Your task to perform on an android device: change keyboard looks Image 0: 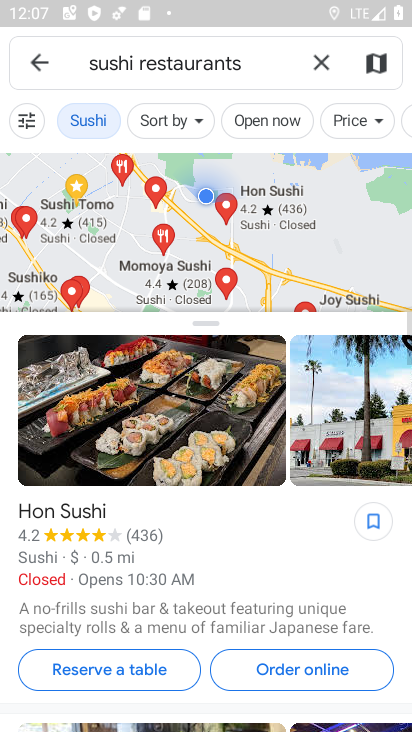
Step 0: press home button
Your task to perform on an android device: change keyboard looks Image 1: 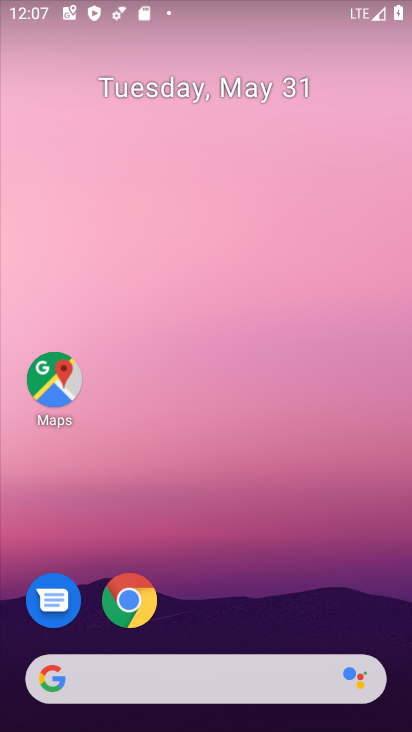
Step 1: drag from (224, 720) to (224, 588)
Your task to perform on an android device: change keyboard looks Image 2: 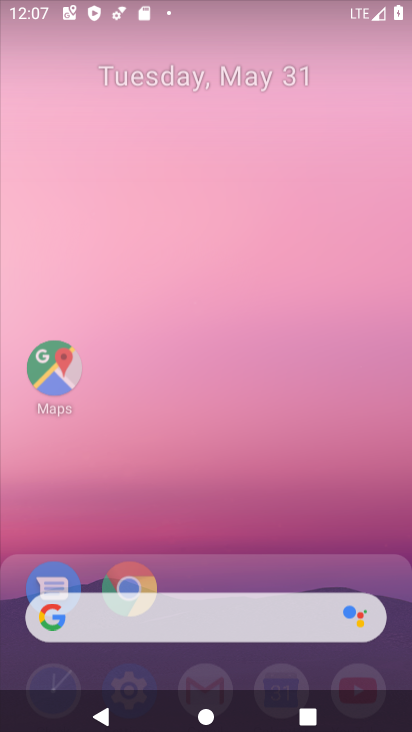
Step 2: click (224, 132)
Your task to perform on an android device: change keyboard looks Image 3: 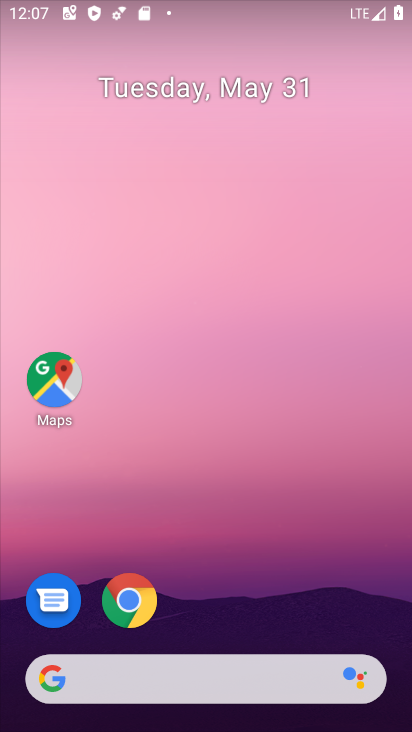
Step 3: drag from (218, 727) to (221, 110)
Your task to perform on an android device: change keyboard looks Image 4: 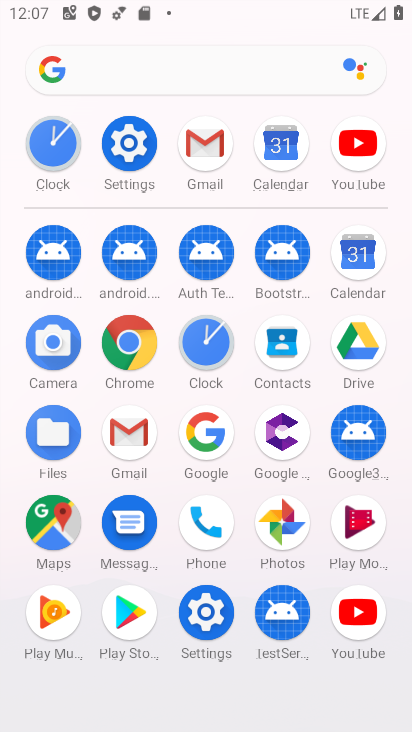
Step 4: click (128, 147)
Your task to perform on an android device: change keyboard looks Image 5: 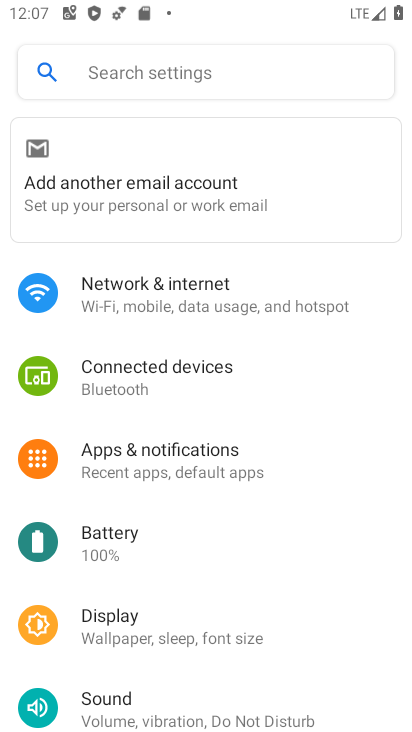
Step 5: drag from (139, 694) to (139, 222)
Your task to perform on an android device: change keyboard looks Image 6: 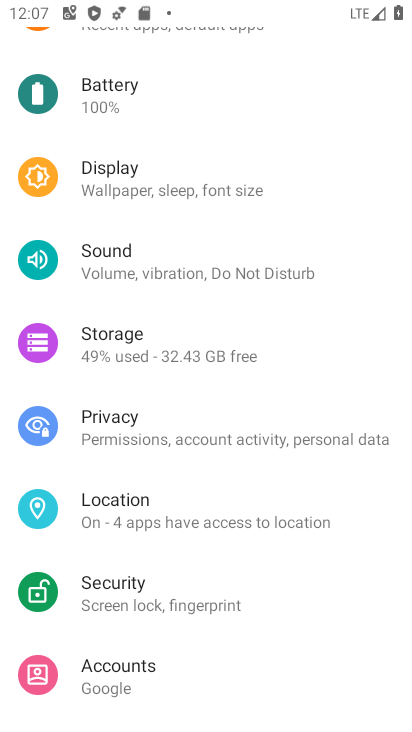
Step 6: drag from (128, 699) to (128, 506)
Your task to perform on an android device: change keyboard looks Image 7: 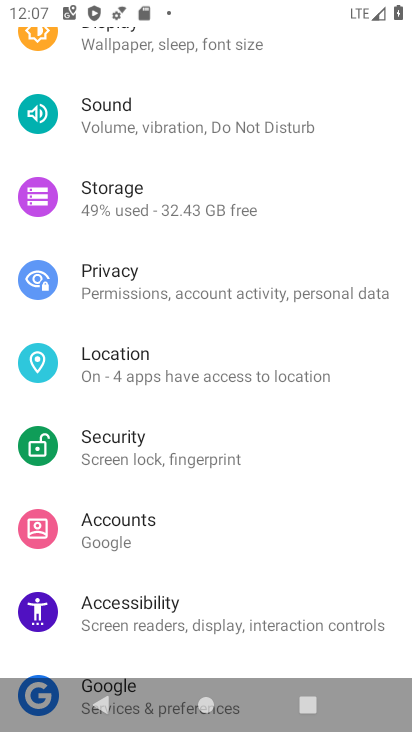
Step 7: click (127, 128)
Your task to perform on an android device: change keyboard looks Image 8: 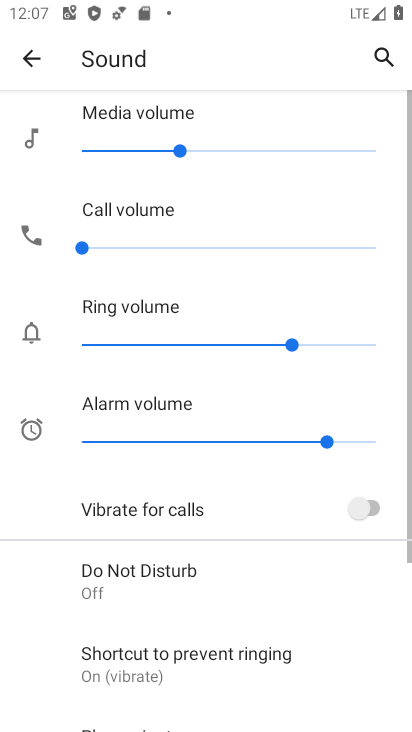
Step 8: drag from (186, 628) to (170, 262)
Your task to perform on an android device: change keyboard looks Image 9: 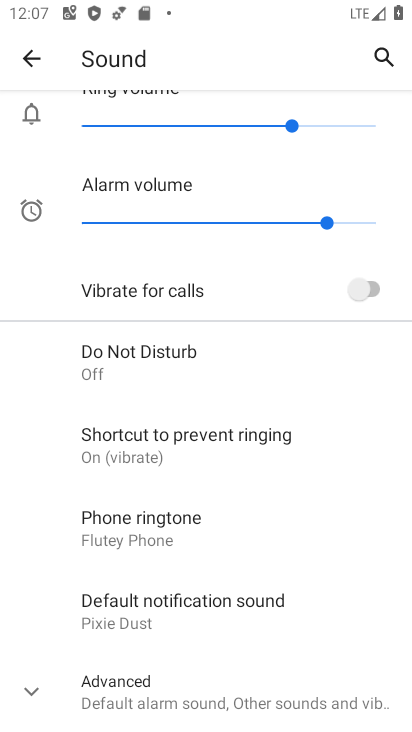
Step 9: click (28, 58)
Your task to perform on an android device: change keyboard looks Image 10: 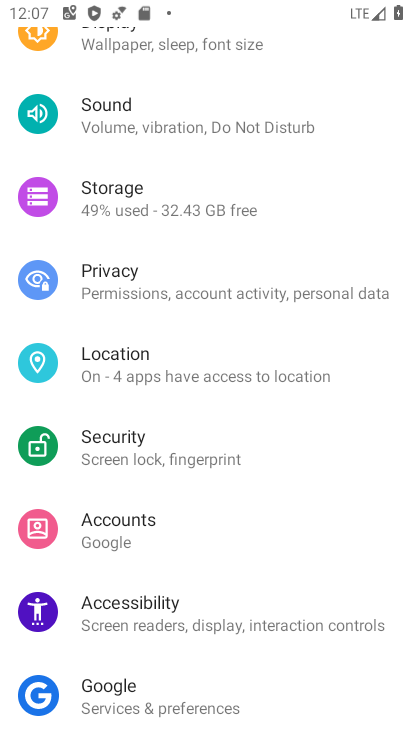
Step 10: drag from (174, 690) to (174, 154)
Your task to perform on an android device: change keyboard looks Image 11: 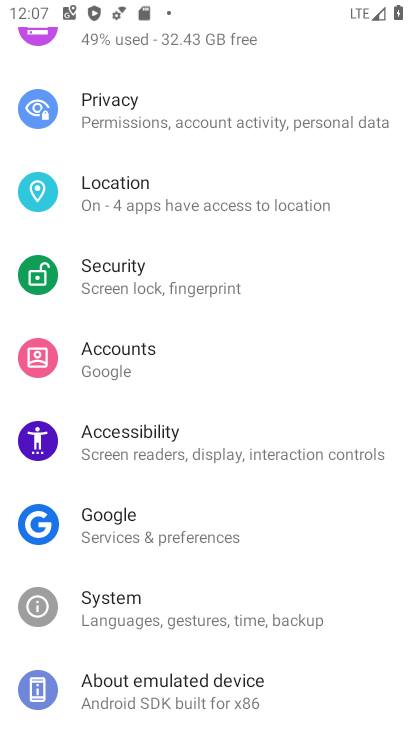
Step 11: click (135, 607)
Your task to perform on an android device: change keyboard looks Image 12: 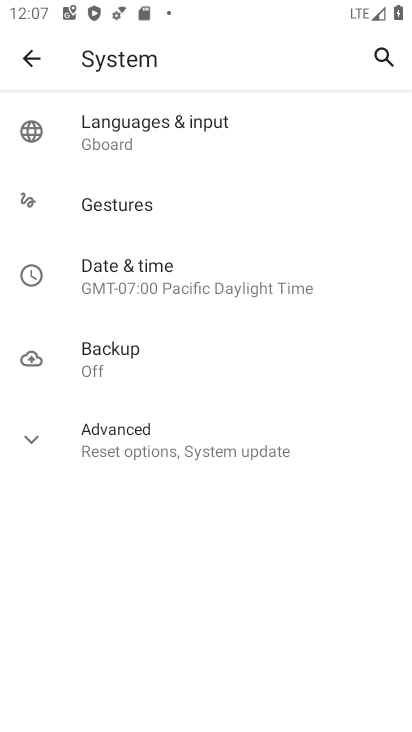
Step 12: click (105, 134)
Your task to perform on an android device: change keyboard looks Image 13: 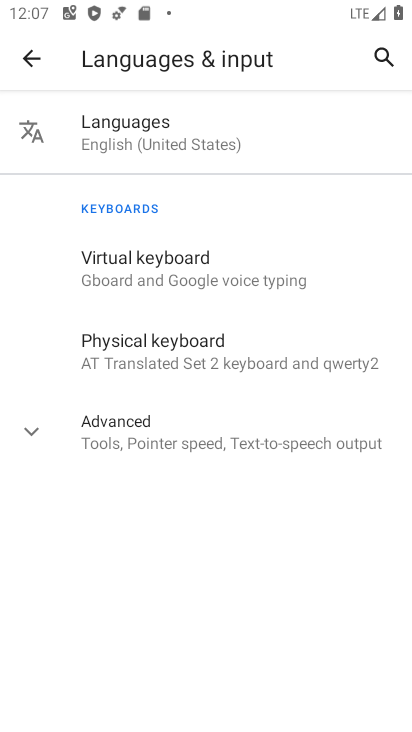
Step 13: click (138, 263)
Your task to perform on an android device: change keyboard looks Image 14: 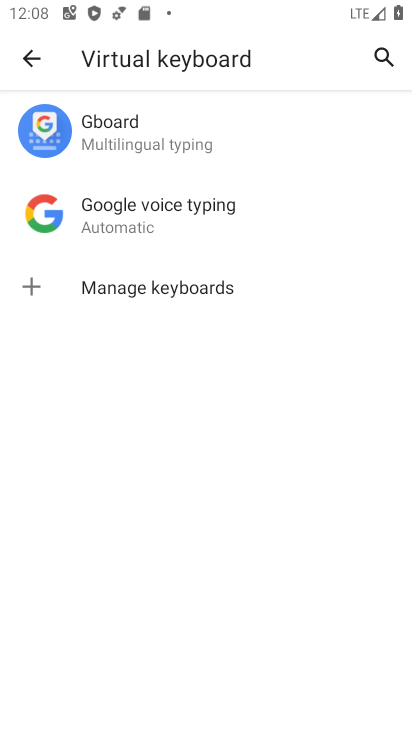
Step 14: click (112, 133)
Your task to perform on an android device: change keyboard looks Image 15: 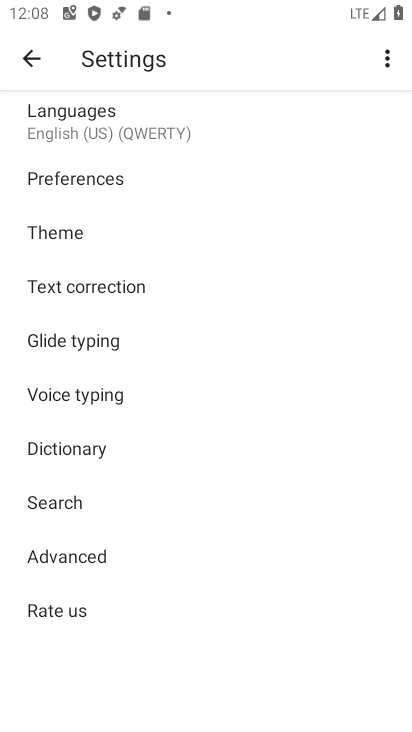
Step 15: click (61, 232)
Your task to perform on an android device: change keyboard looks Image 16: 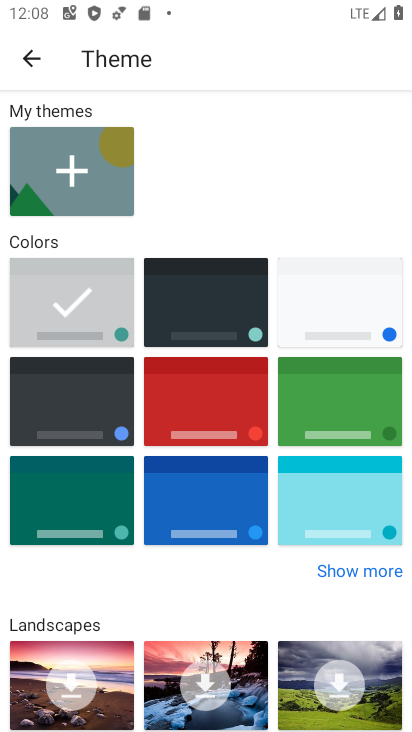
Step 16: click (185, 316)
Your task to perform on an android device: change keyboard looks Image 17: 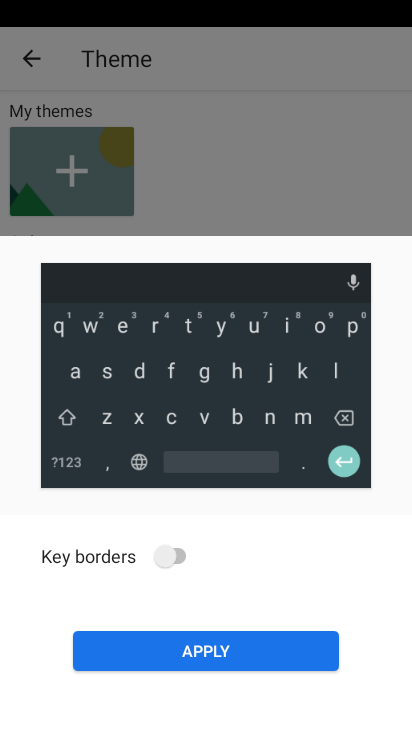
Step 17: click (177, 557)
Your task to perform on an android device: change keyboard looks Image 18: 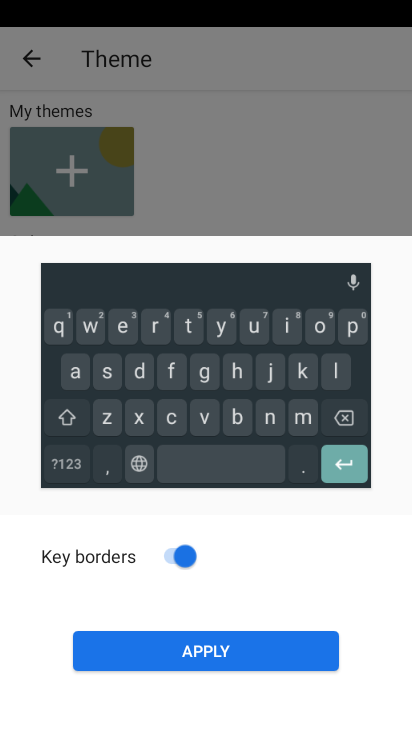
Step 18: click (213, 651)
Your task to perform on an android device: change keyboard looks Image 19: 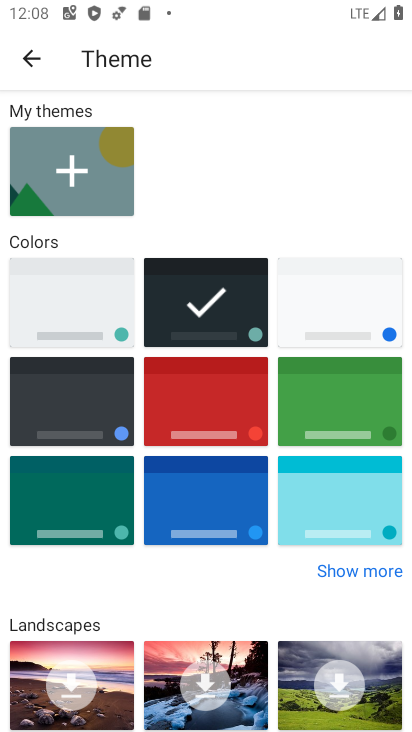
Step 19: task complete